Your task to perform on an android device: Search for a 1/4" hex shank drill bit on Lowe's. Image 0: 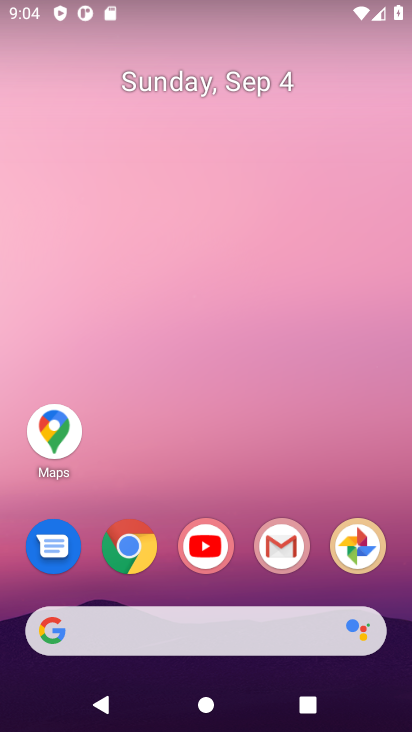
Step 0: click (125, 560)
Your task to perform on an android device: Search for a 1/4" hex shank drill bit on Lowe's. Image 1: 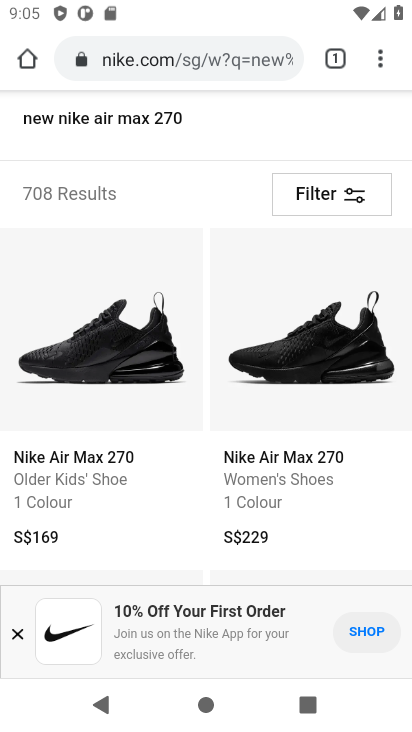
Step 1: click (169, 73)
Your task to perform on an android device: Search for a 1/4" hex shank drill bit on Lowe's. Image 2: 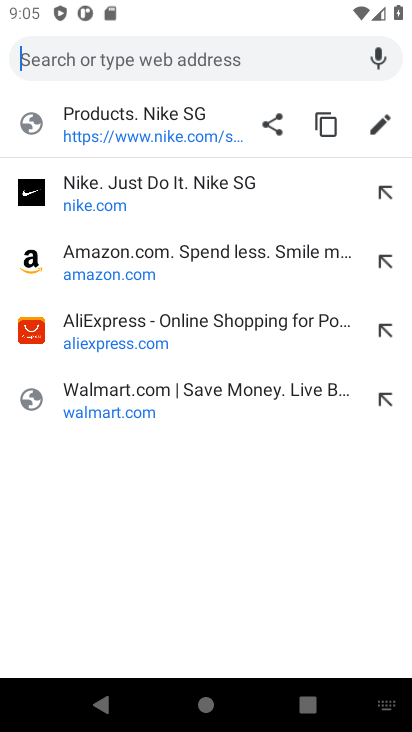
Step 2: type "Lowe's."
Your task to perform on an android device: Search for a 1/4" hex shank drill bit on Lowe's. Image 3: 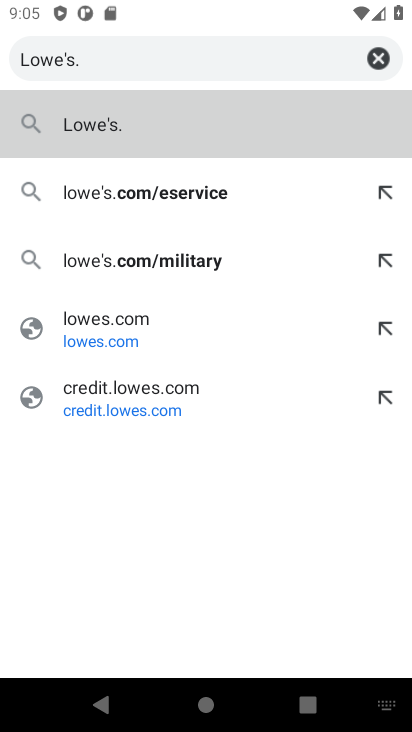
Step 3: click (94, 136)
Your task to perform on an android device: Search for a 1/4" hex shank drill bit on Lowe's. Image 4: 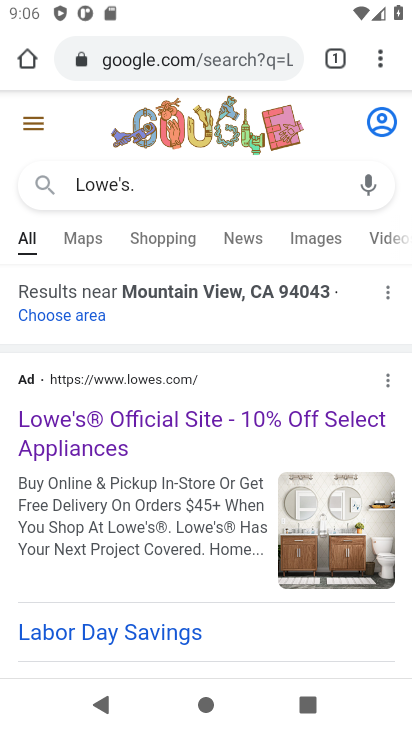
Step 4: drag from (124, 473) to (135, 191)
Your task to perform on an android device: Search for a 1/4" hex shank drill bit on Lowe's. Image 5: 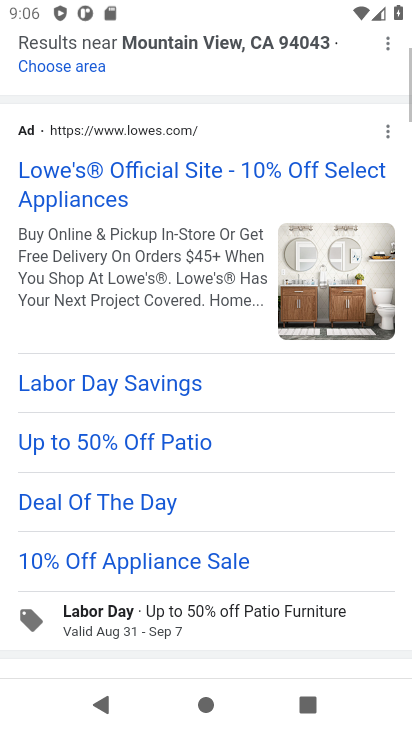
Step 5: drag from (139, 600) to (179, 203)
Your task to perform on an android device: Search for a 1/4" hex shank drill bit on Lowe's. Image 6: 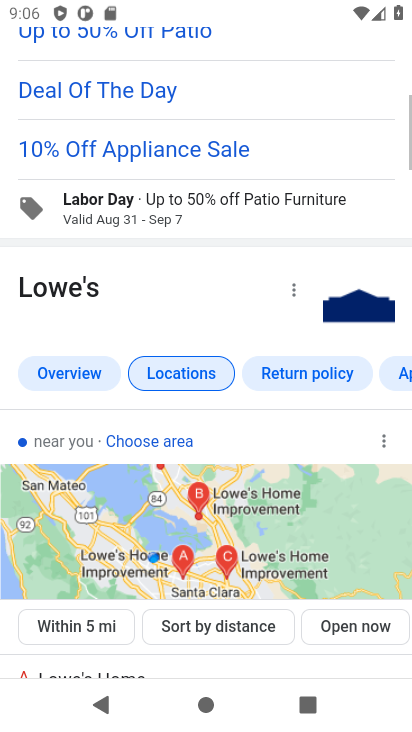
Step 6: drag from (148, 500) to (166, 197)
Your task to perform on an android device: Search for a 1/4" hex shank drill bit on Lowe's. Image 7: 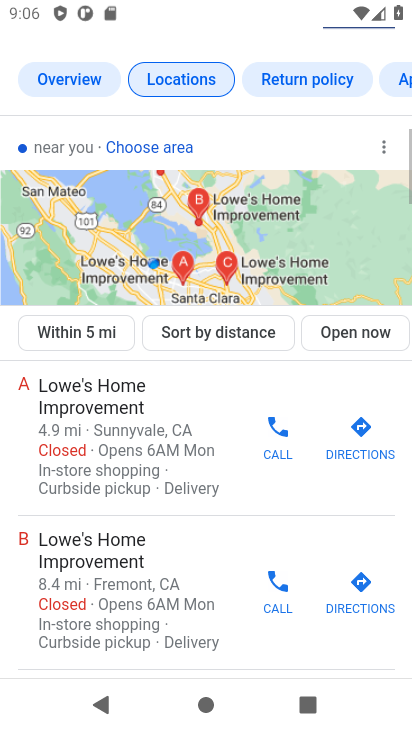
Step 7: drag from (125, 427) to (132, 177)
Your task to perform on an android device: Search for a 1/4" hex shank drill bit on Lowe's. Image 8: 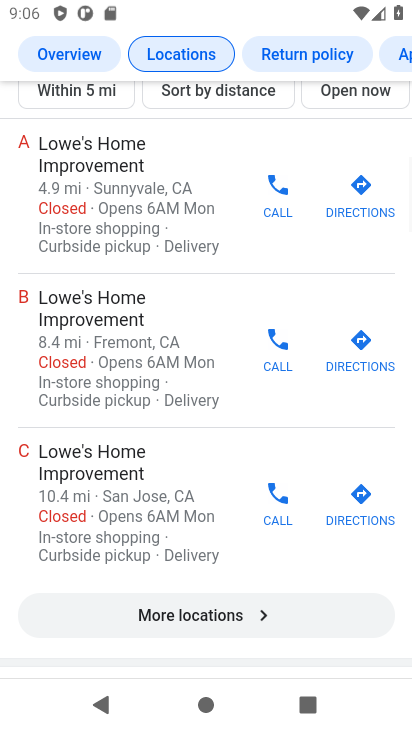
Step 8: drag from (131, 506) to (159, 156)
Your task to perform on an android device: Search for a 1/4" hex shank drill bit on Lowe's. Image 9: 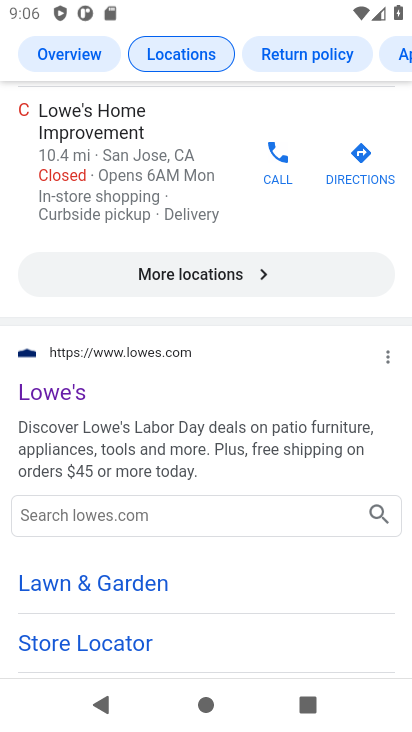
Step 9: drag from (138, 434) to (173, 221)
Your task to perform on an android device: Search for a 1/4" hex shank drill bit on Lowe's. Image 10: 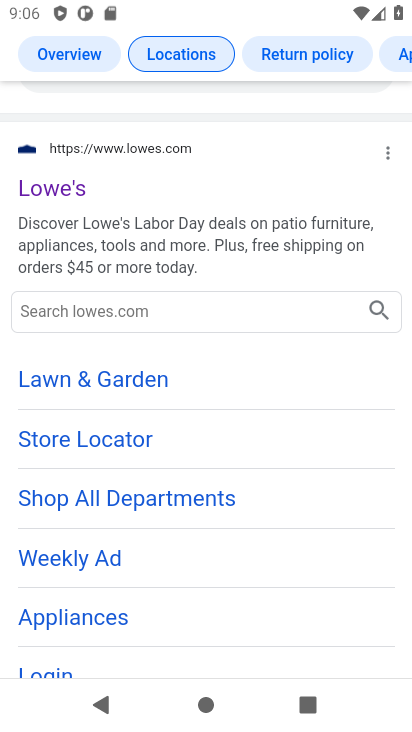
Step 10: click (71, 182)
Your task to perform on an android device: Search for a 1/4" hex shank drill bit on Lowe's. Image 11: 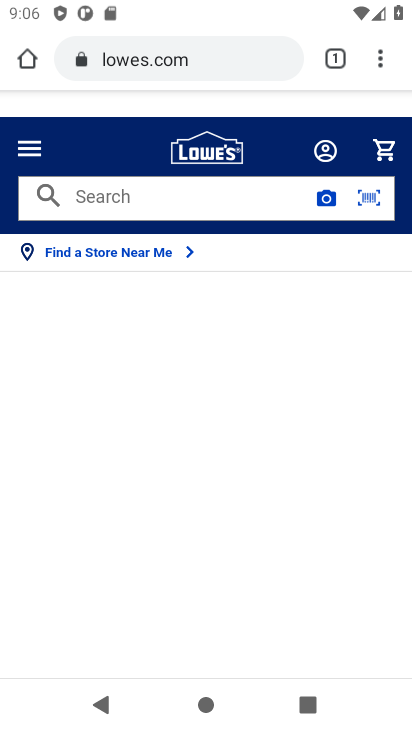
Step 11: click (209, 196)
Your task to perform on an android device: Search for a 1/4" hex shank drill bit on Lowe's. Image 12: 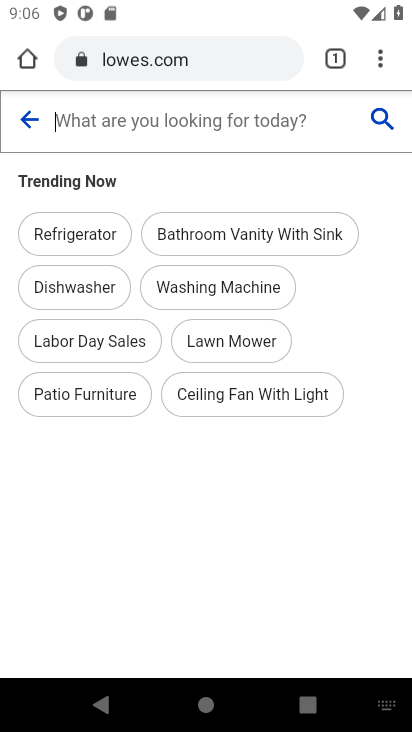
Step 12: type "1/4" hex shank drill bit"
Your task to perform on an android device: Search for a 1/4" hex shank drill bit on Lowe's. Image 13: 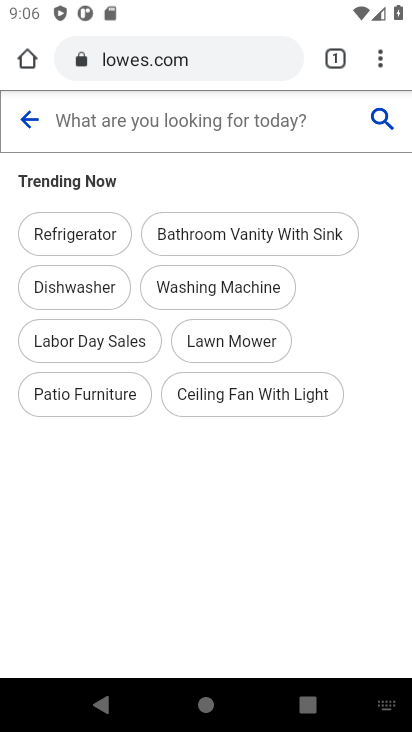
Step 13: click (179, 119)
Your task to perform on an android device: Search for a 1/4" hex shank drill bit on Lowe's. Image 14: 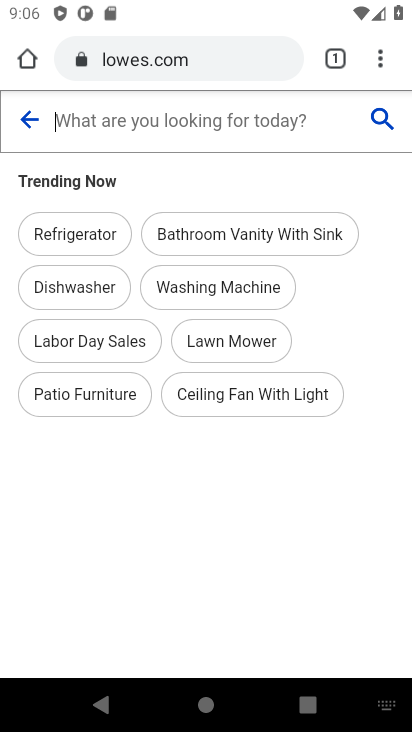
Step 14: type " 1/4" hex shank drill bit"
Your task to perform on an android device: Search for a 1/4" hex shank drill bit on Lowe's. Image 15: 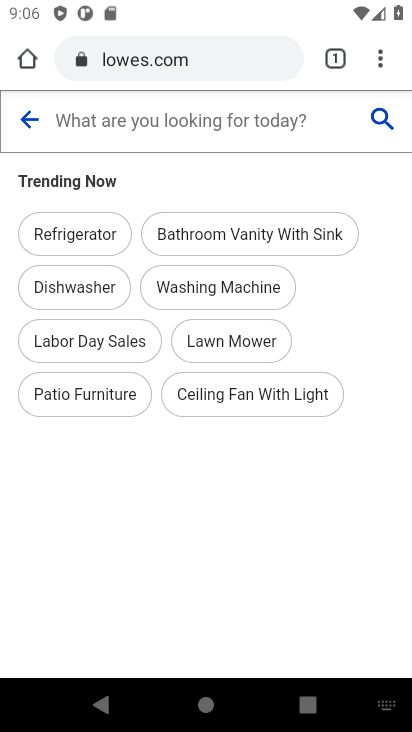
Step 15: click (272, 127)
Your task to perform on an android device: Search for a 1/4" hex shank drill bit on Lowe's. Image 16: 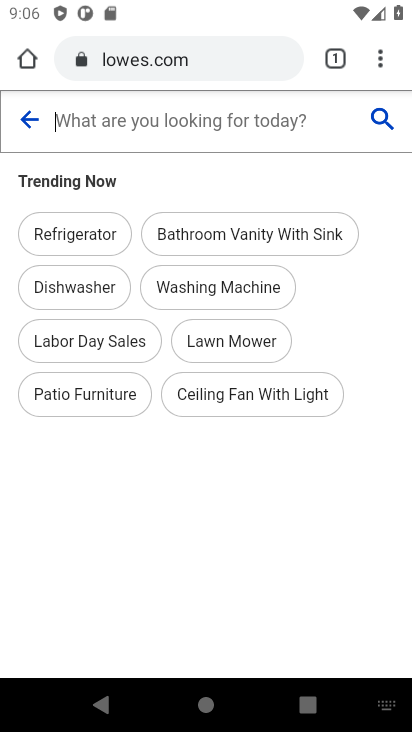
Step 16: task complete